Your task to perform on an android device: install app "Google Docs" Image 0: 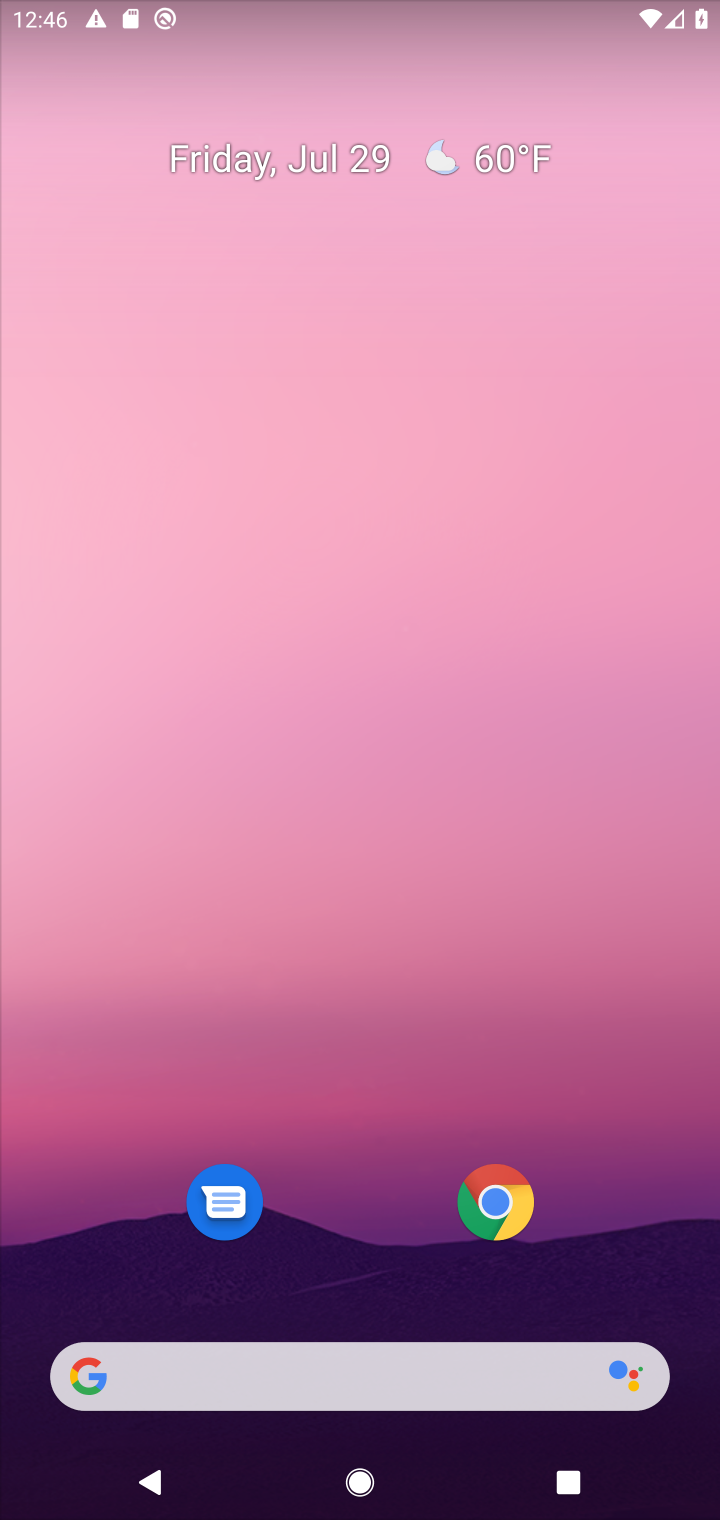
Step 0: click (383, 1372)
Your task to perform on an android device: install app "Google Docs" Image 1: 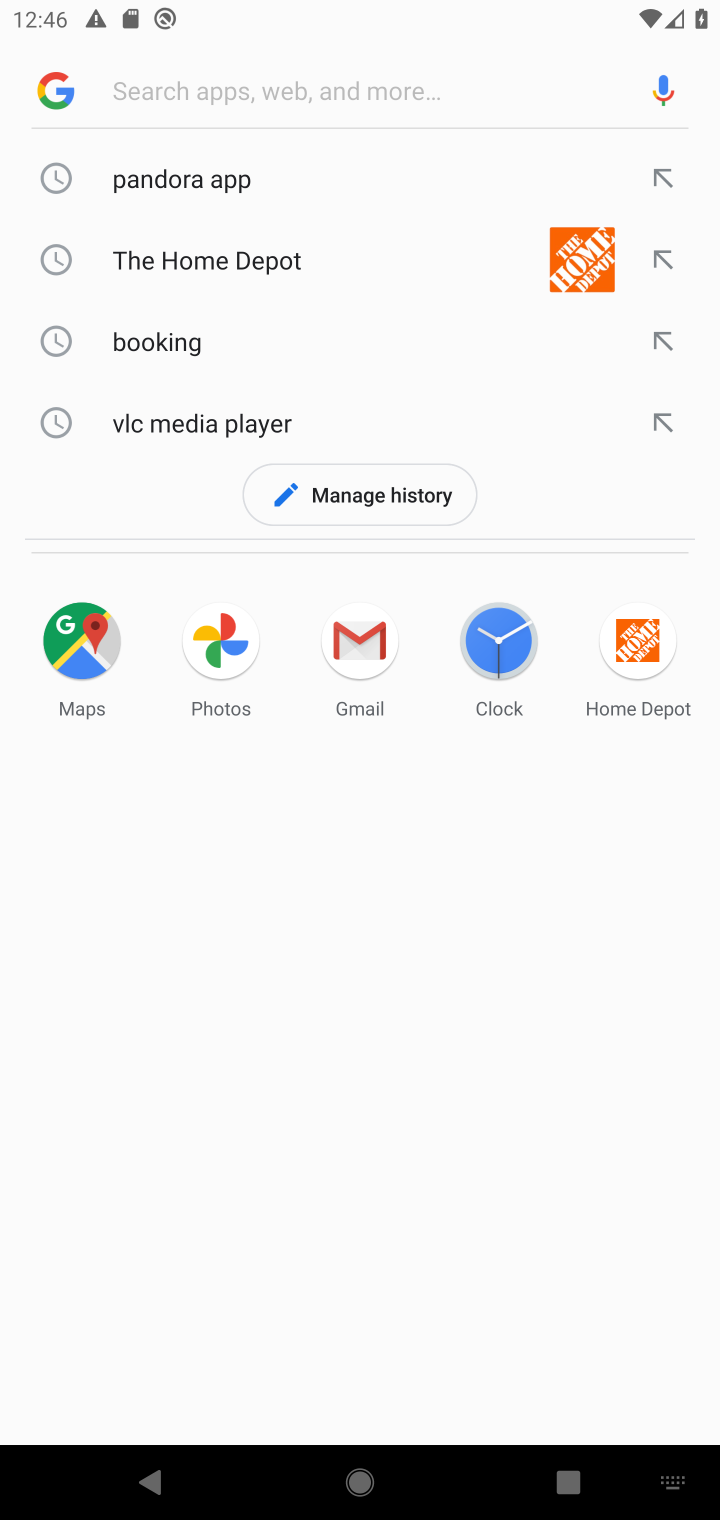
Step 1: type "google doc"
Your task to perform on an android device: install app "Google Docs" Image 2: 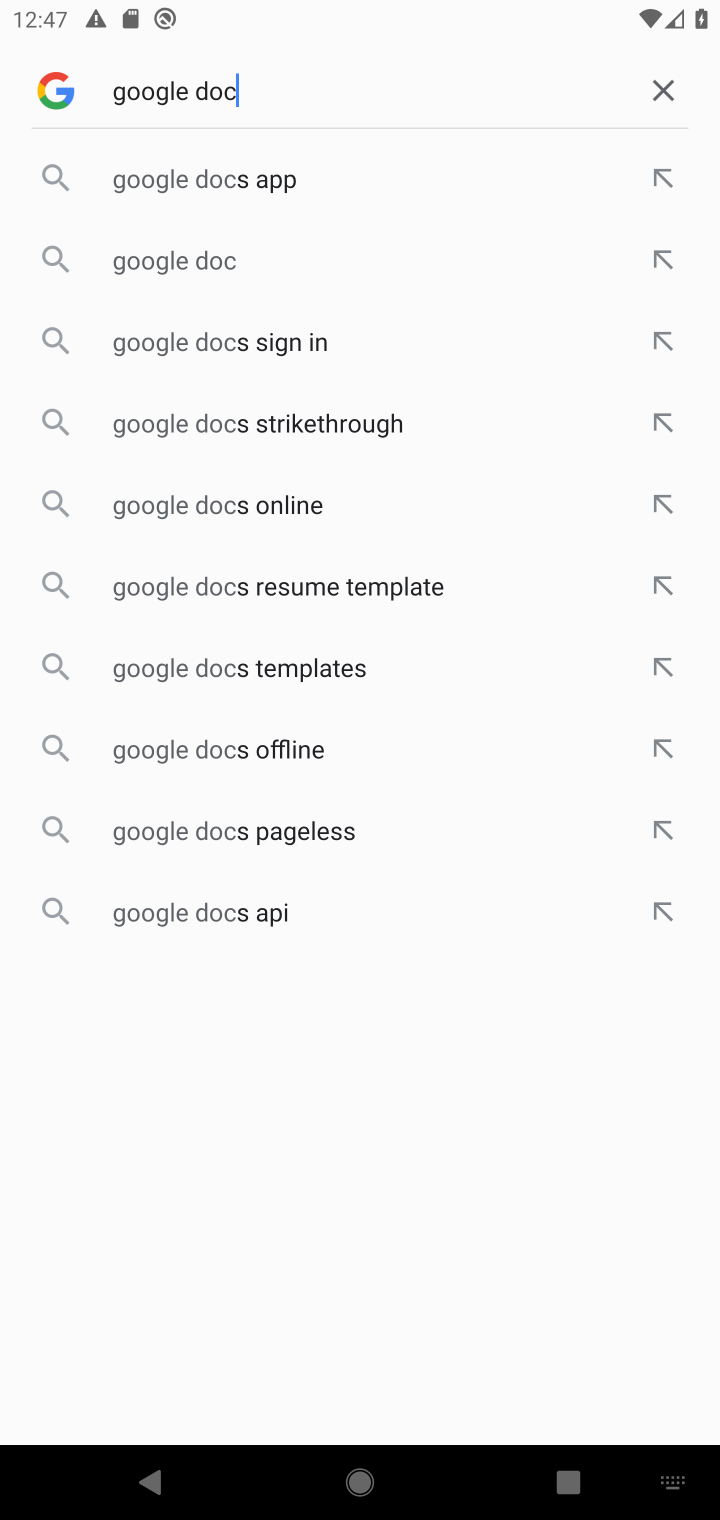
Step 2: click (209, 185)
Your task to perform on an android device: install app "Google Docs" Image 3: 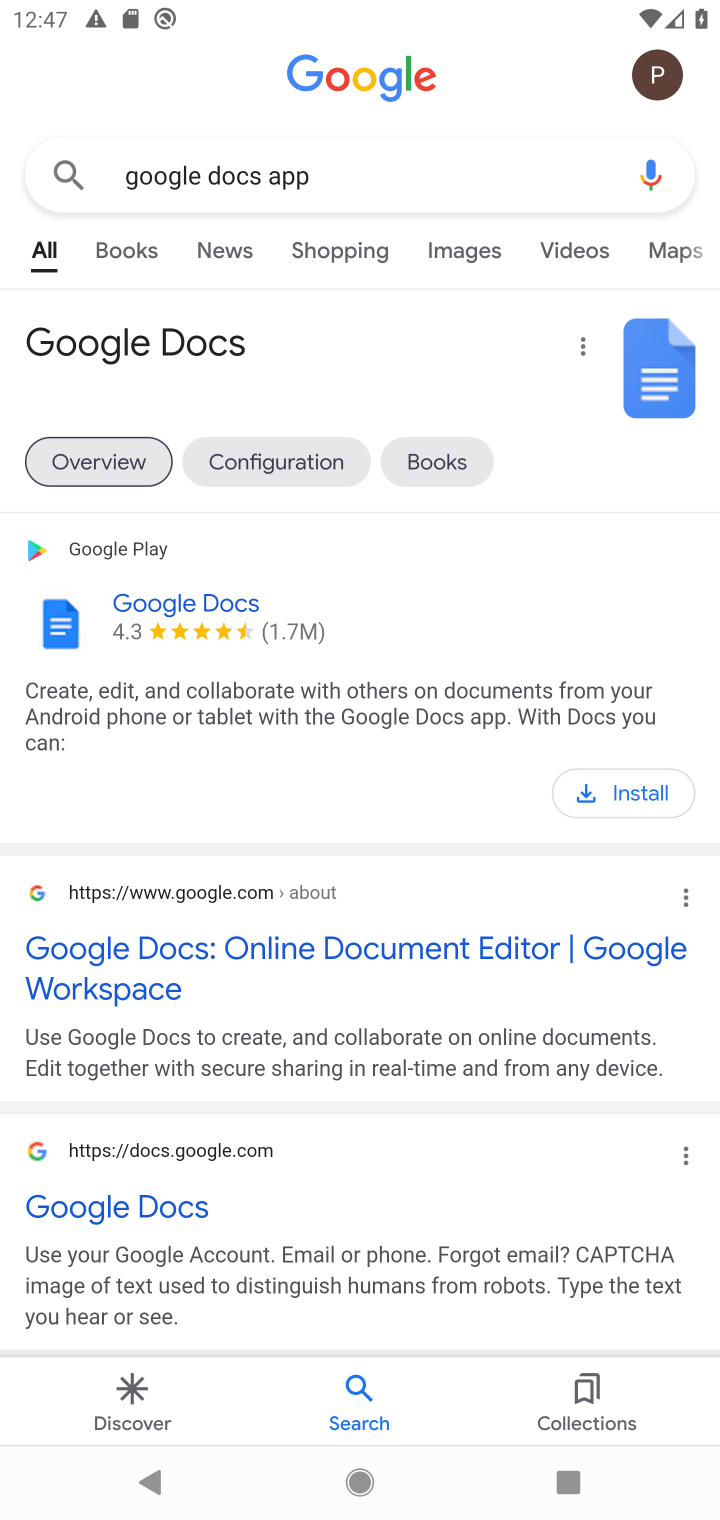
Step 3: click (581, 795)
Your task to perform on an android device: install app "Google Docs" Image 4: 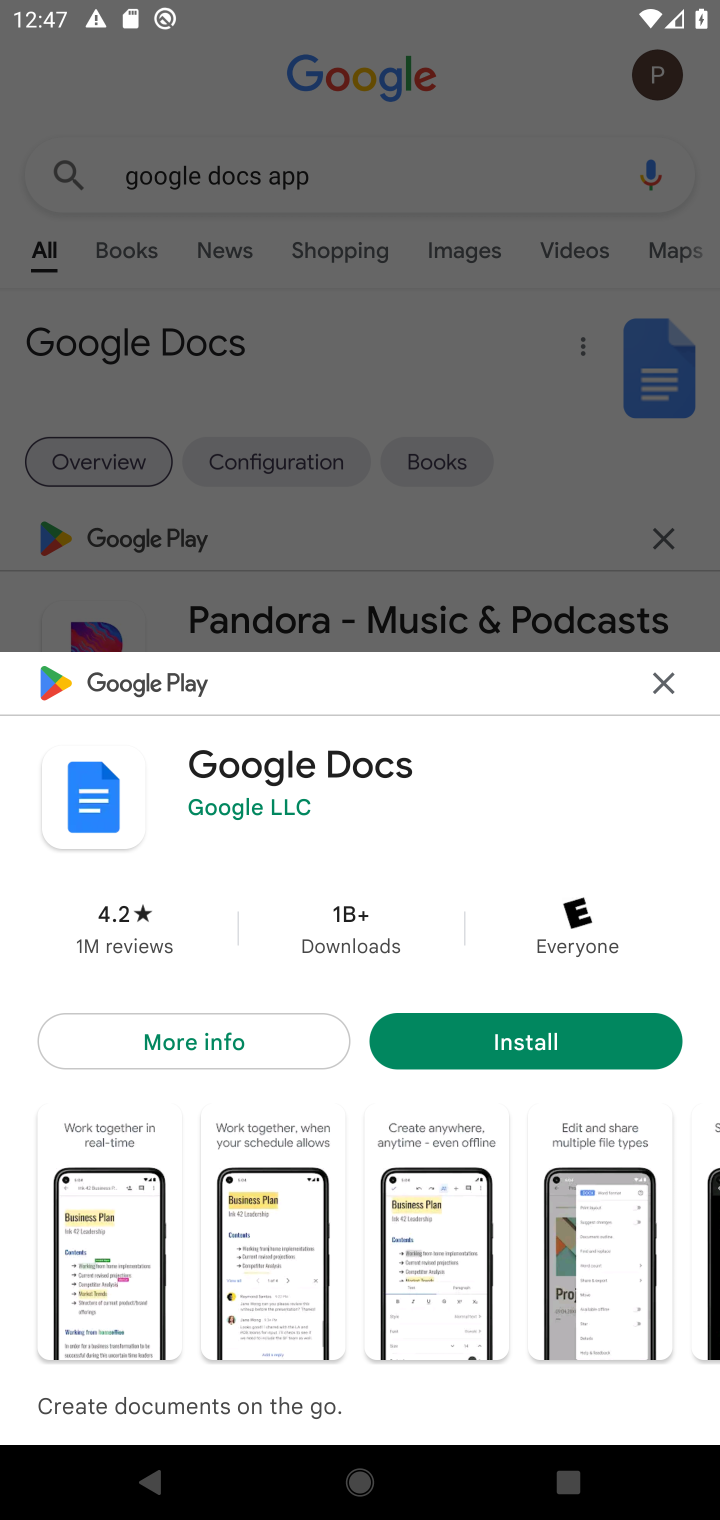
Step 4: click (465, 1054)
Your task to perform on an android device: install app "Google Docs" Image 5: 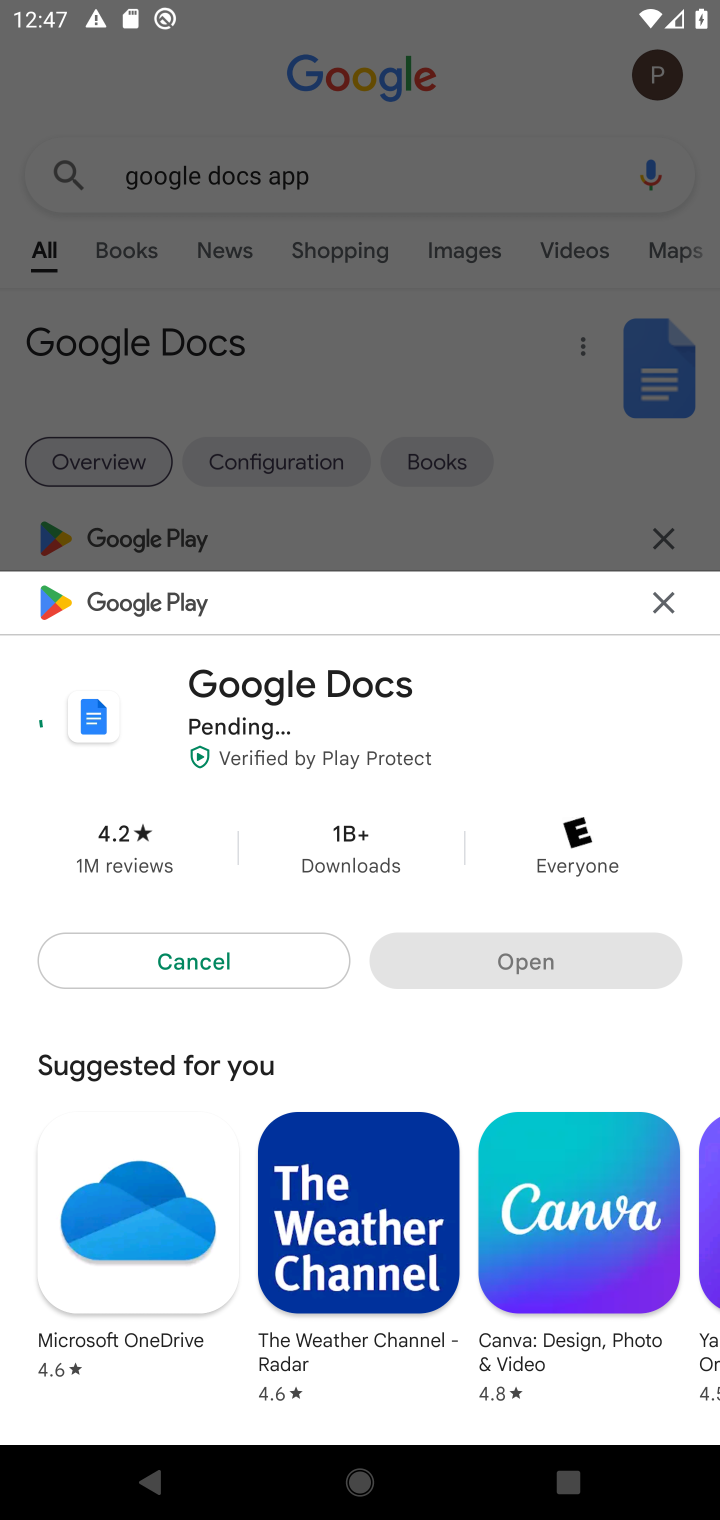
Step 5: task complete